Your task to perform on an android device: turn pop-ups off in chrome Image 0: 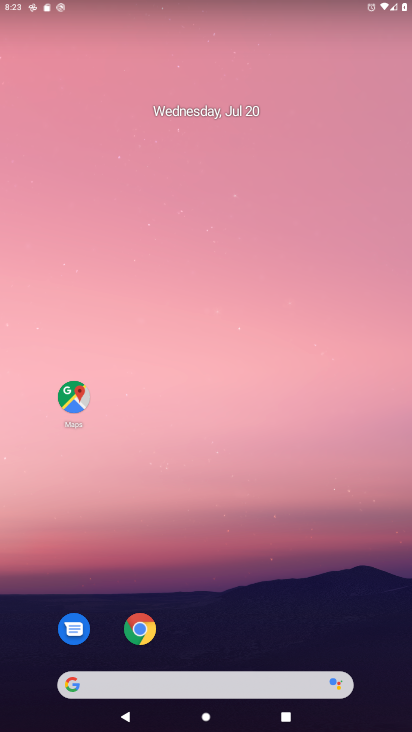
Step 0: click (138, 626)
Your task to perform on an android device: turn pop-ups off in chrome Image 1: 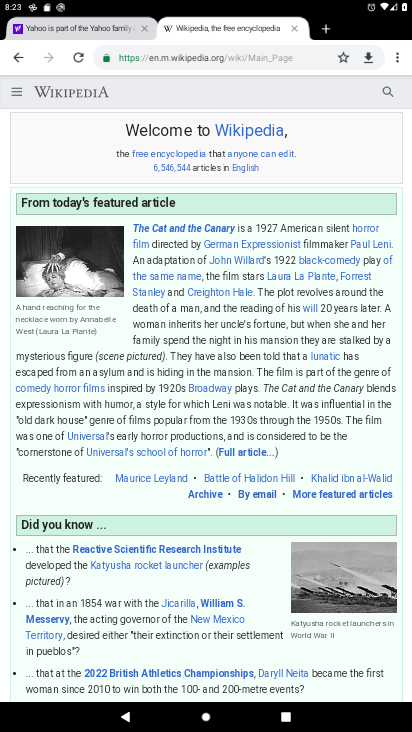
Step 1: click (394, 59)
Your task to perform on an android device: turn pop-ups off in chrome Image 2: 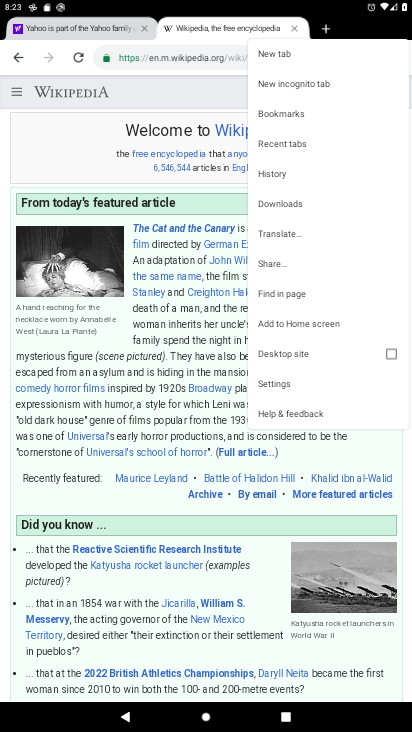
Step 2: click (282, 382)
Your task to perform on an android device: turn pop-ups off in chrome Image 3: 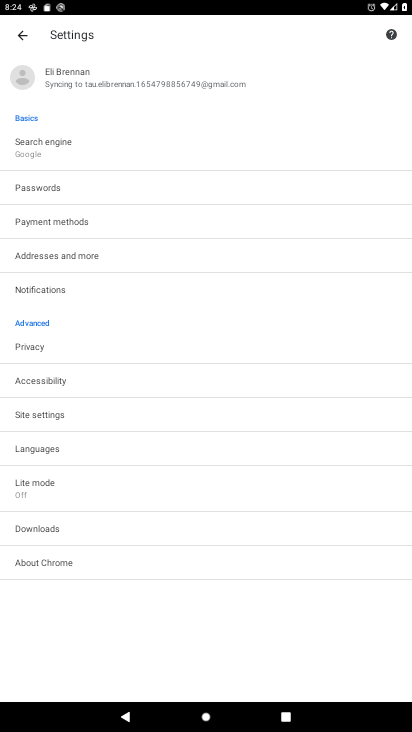
Step 3: click (34, 411)
Your task to perform on an android device: turn pop-ups off in chrome Image 4: 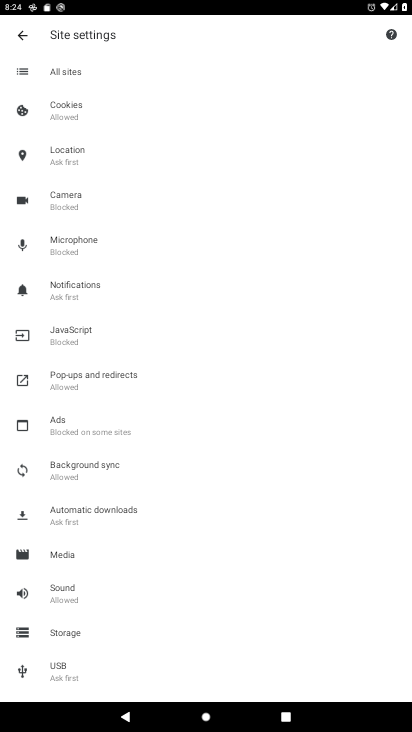
Step 4: click (103, 375)
Your task to perform on an android device: turn pop-ups off in chrome Image 5: 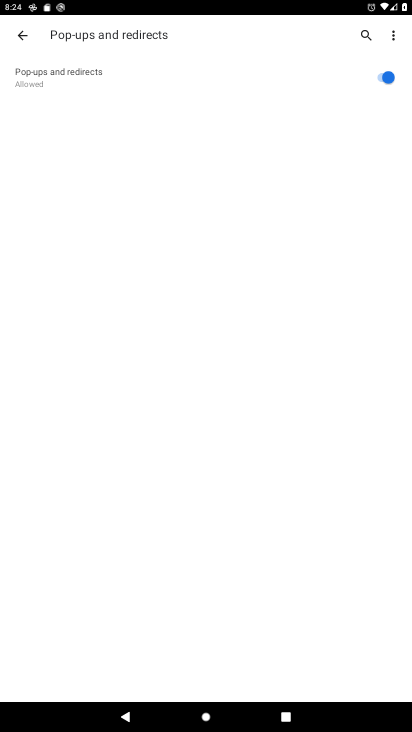
Step 5: click (379, 77)
Your task to perform on an android device: turn pop-ups off in chrome Image 6: 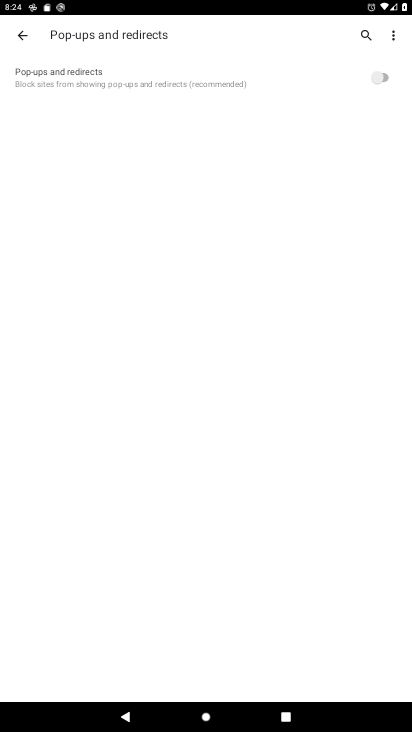
Step 6: task complete